Your task to perform on an android device: Show me popular videos on Youtube Image 0: 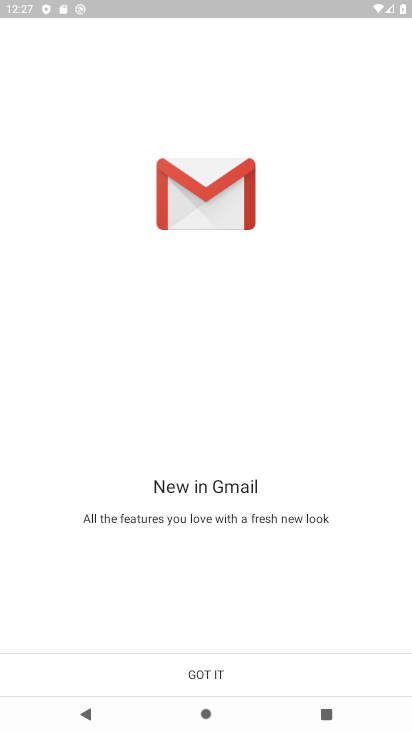
Step 0: press home button
Your task to perform on an android device: Show me popular videos on Youtube Image 1: 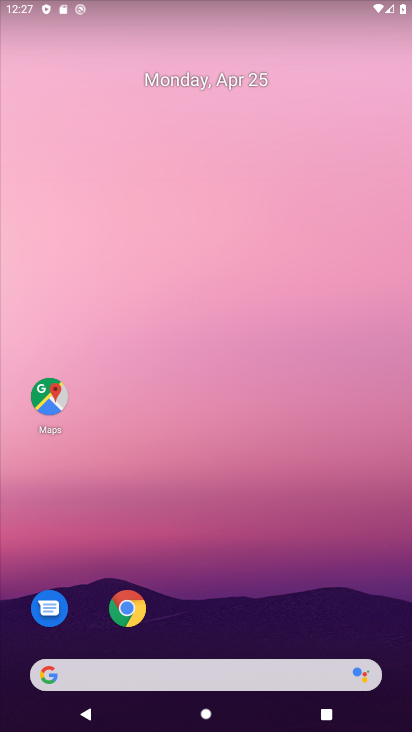
Step 1: drag from (204, 628) to (203, 72)
Your task to perform on an android device: Show me popular videos on Youtube Image 2: 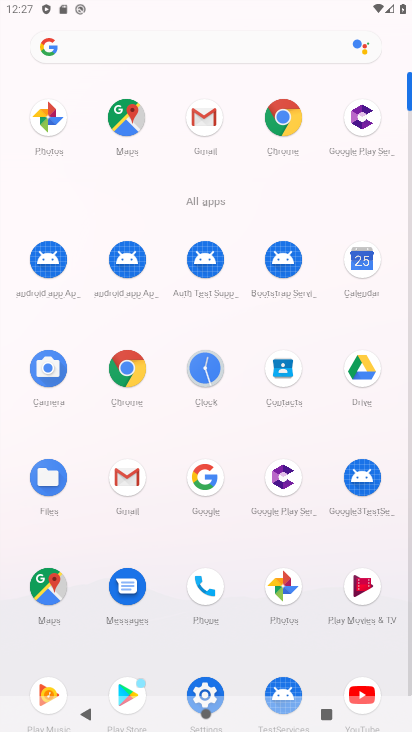
Step 2: click (370, 682)
Your task to perform on an android device: Show me popular videos on Youtube Image 3: 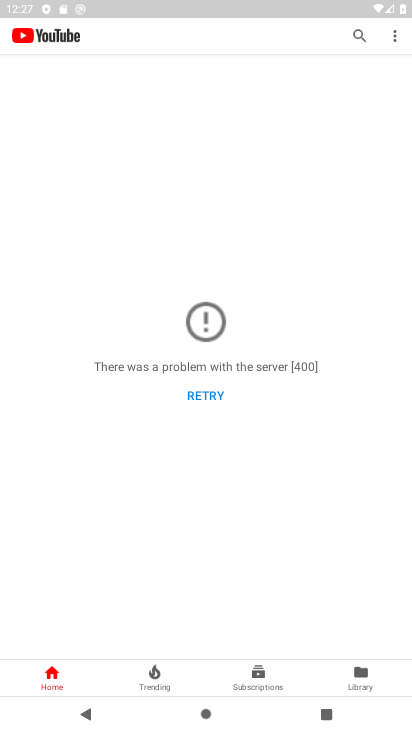
Step 3: click (204, 397)
Your task to perform on an android device: Show me popular videos on Youtube Image 4: 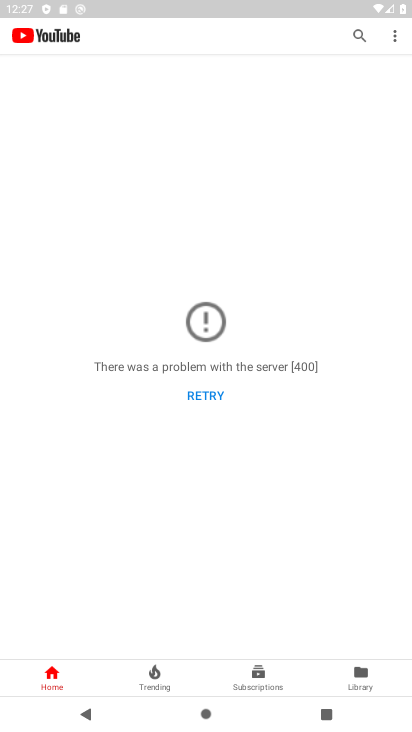
Step 4: click (153, 675)
Your task to perform on an android device: Show me popular videos on Youtube Image 5: 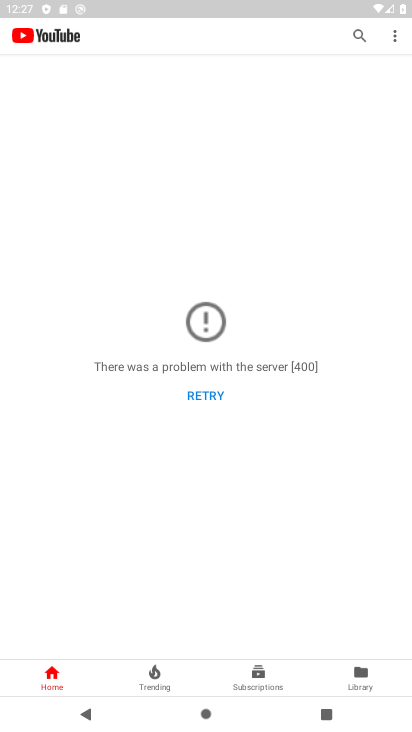
Step 5: task complete